Your task to perform on an android device: Find coffee shops on Maps Image 0: 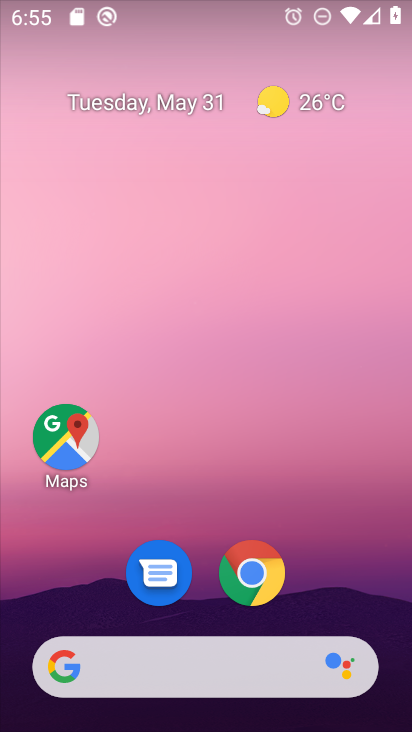
Step 0: drag from (403, 638) to (343, 88)
Your task to perform on an android device: Find coffee shops on Maps Image 1: 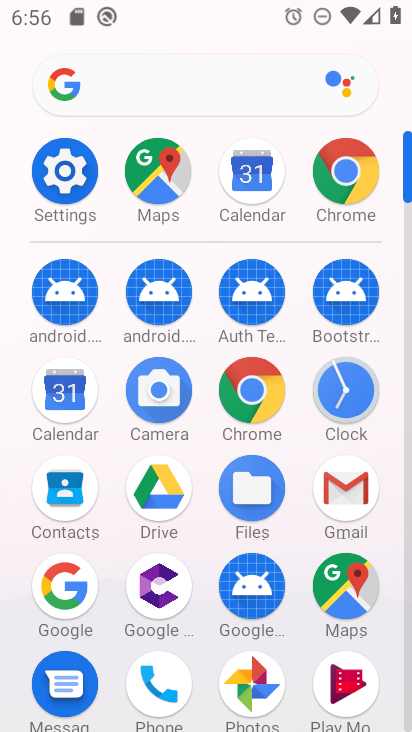
Step 1: click (344, 583)
Your task to perform on an android device: Find coffee shops on Maps Image 2: 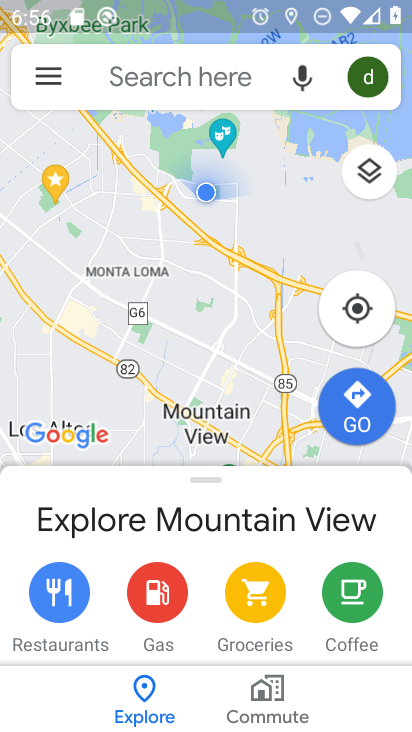
Step 2: click (190, 90)
Your task to perform on an android device: Find coffee shops on Maps Image 3: 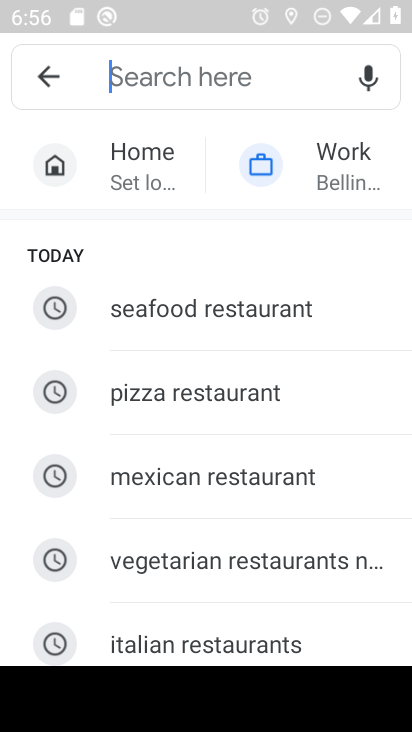
Step 3: type "coffee"
Your task to perform on an android device: Find coffee shops on Maps Image 4: 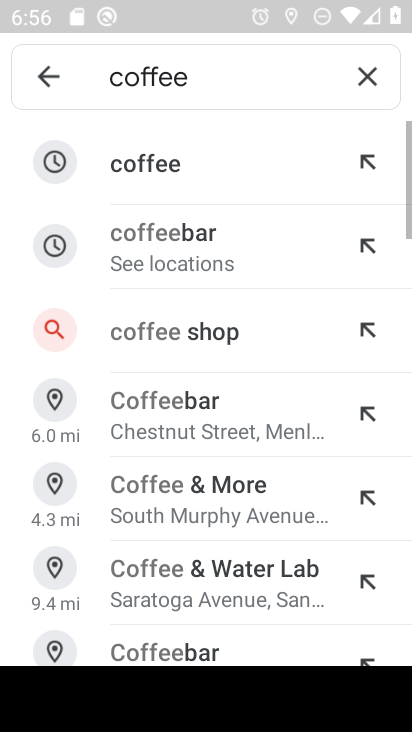
Step 4: click (166, 180)
Your task to perform on an android device: Find coffee shops on Maps Image 5: 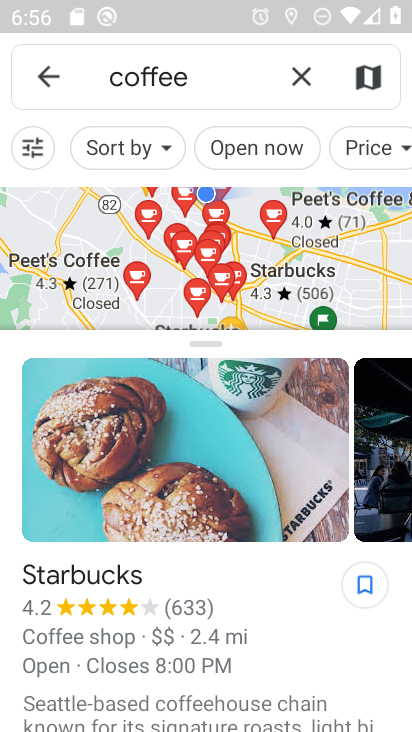
Step 5: task complete